Your task to perform on an android device: turn on javascript in the chrome app Image 0: 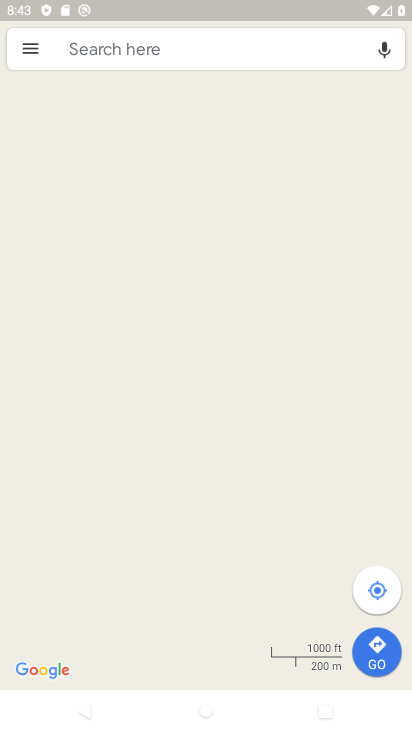
Step 0: press home button
Your task to perform on an android device: turn on javascript in the chrome app Image 1: 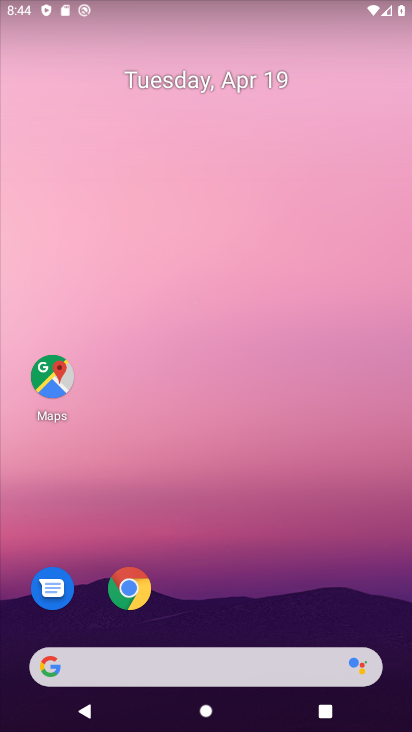
Step 1: click (129, 580)
Your task to perform on an android device: turn on javascript in the chrome app Image 2: 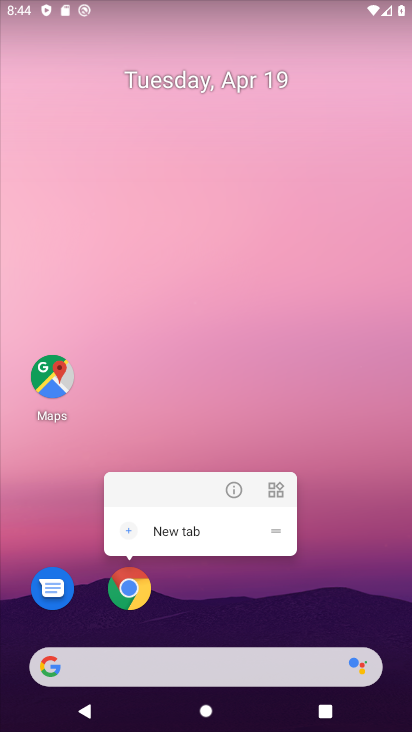
Step 2: click (133, 591)
Your task to perform on an android device: turn on javascript in the chrome app Image 3: 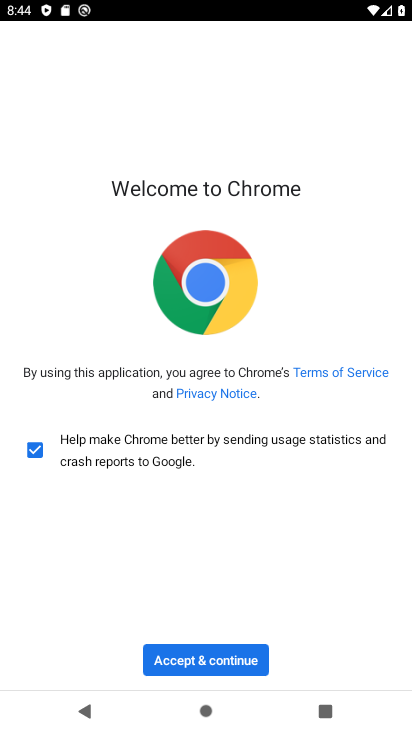
Step 3: click (200, 659)
Your task to perform on an android device: turn on javascript in the chrome app Image 4: 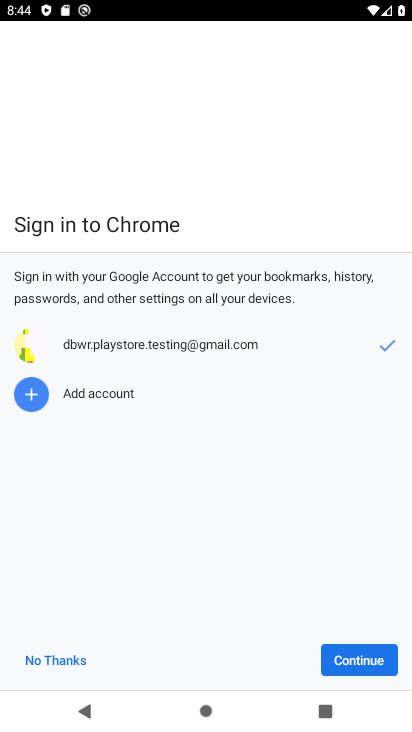
Step 4: click (355, 662)
Your task to perform on an android device: turn on javascript in the chrome app Image 5: 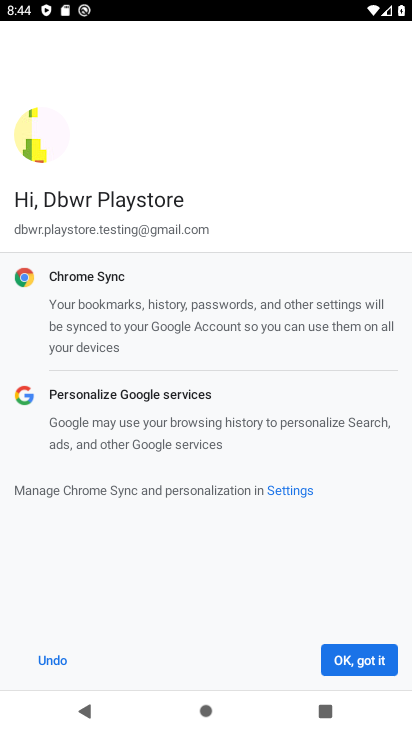
Step 5: click (369, 665)
Your task to perform on an android device: turn on javascript in the chrome app Image 6: 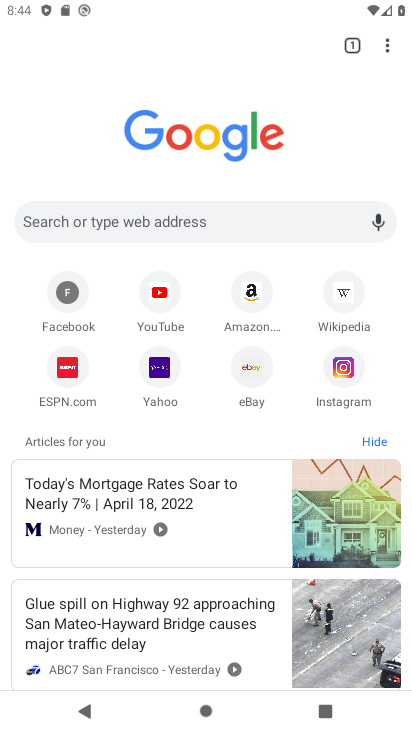
Step 6: click (384, 41)
Your task to perform on an android device: turn on javascript in the chrome app Image 7: 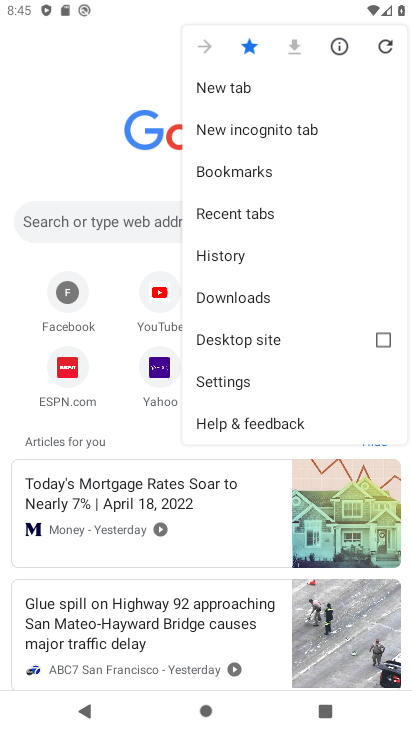
Step 7: click (252, 376)
Your task to perform on an android device: turn on javascript in the chrome app Image 8: 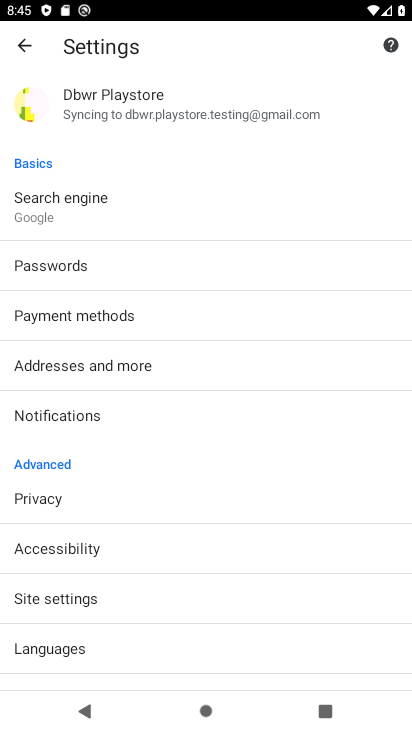
Step 8: drag from (140, 623) to (201, 262)
Your task to perform on an android device: turn on javascript in the chrome app Image 9: 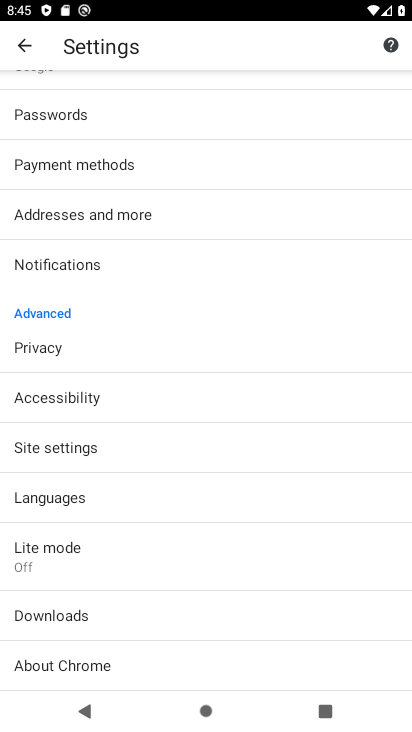
Step 9: click (110, 447)
Your task to perform on an android device: turn on javascript in the chrome app Image 10: 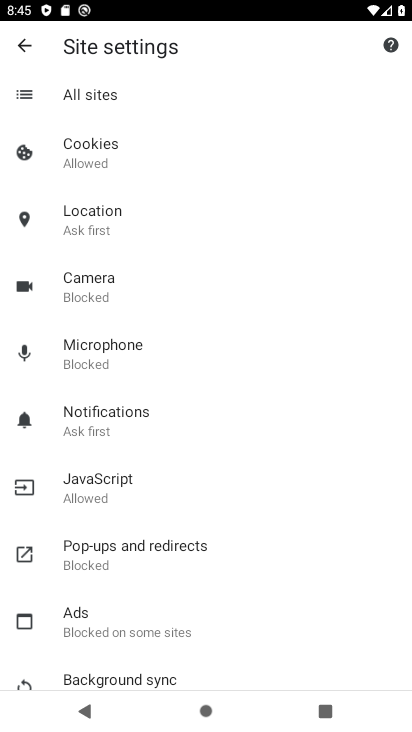
Step 10: click (136, 486)
Your task to perform on an android device: turn on javascript in the chrome app Image 11: 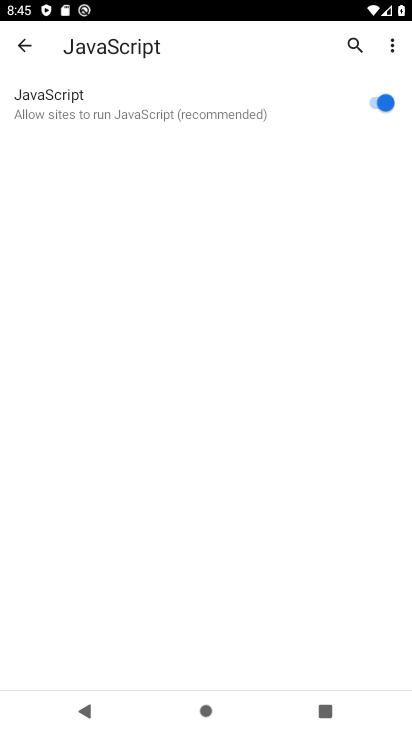
Step 11: task complete